Your task to perform on an android device: manage bookmarks in the chrome app Image 0: 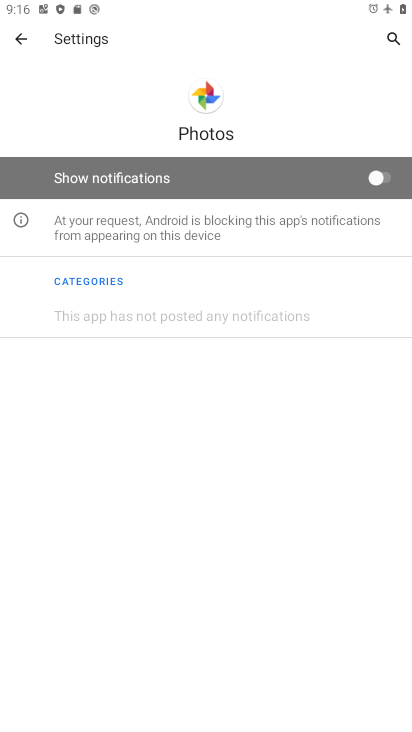
Step 0: press home button
Your task to perform on an android device: manage bookmarks in the chrome app Image 1: 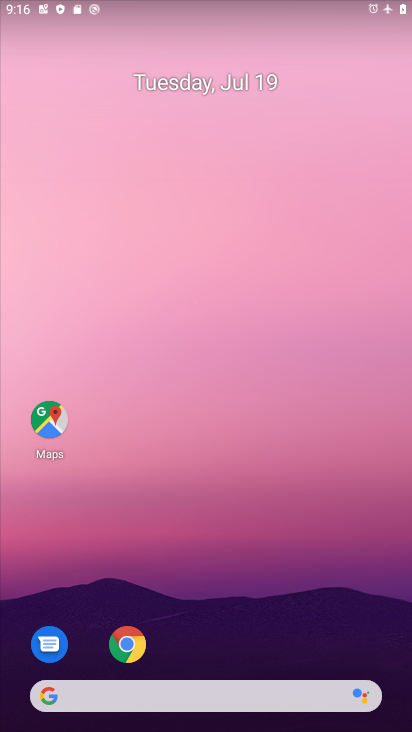
Step 1: click (134, 641)
Your task to perform on an android device: manage bookmarks in the chrome app Image 2: 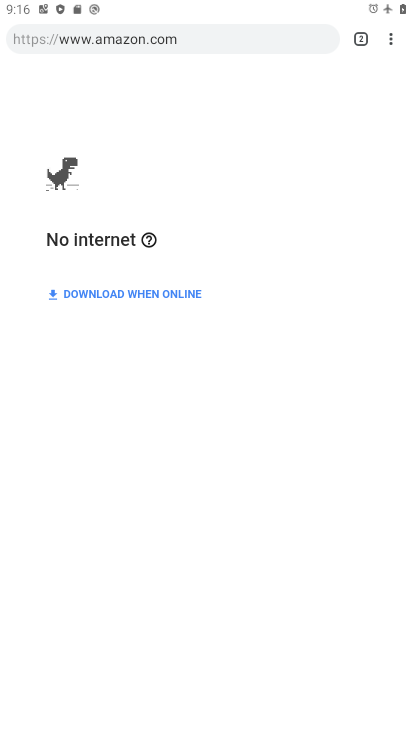
Step 2: click (394, 40)
Your task to perform on an android device: manage bookmarks in the chrome app Image 3: 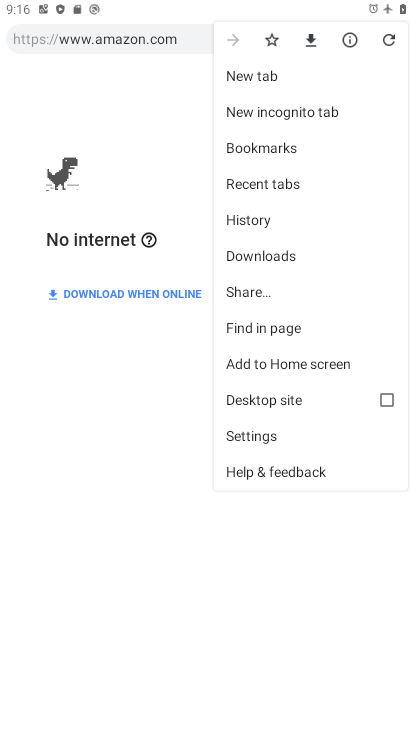
Step 3: click (273, 140)
Your task to perform on an android device: manage bookmarks in the chrome app Image 4: 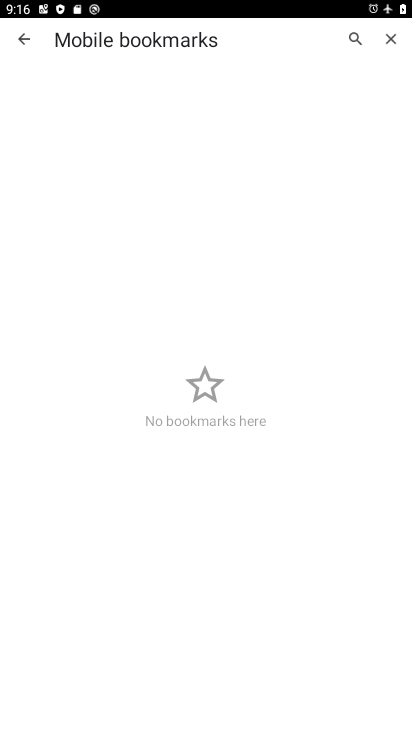
Step 4: task complete